Your task to perform on an android device: turn off airplane mode Image 0: 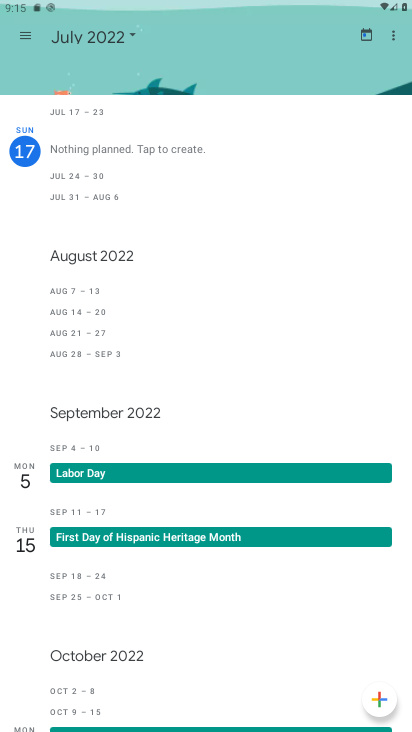
Step 0: press home button
Your task to perform on an android device: turn off airplane mode Image 1: 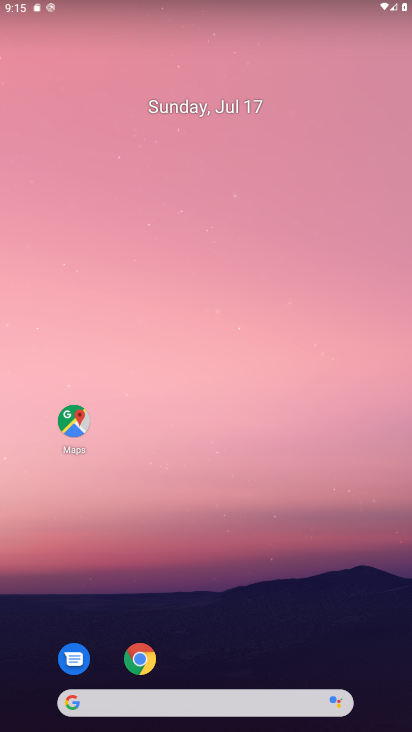
Step 1: drag from (175, 688) to (161, 41)
Your task to perform on an android device: turn off airplane mode Image 2: 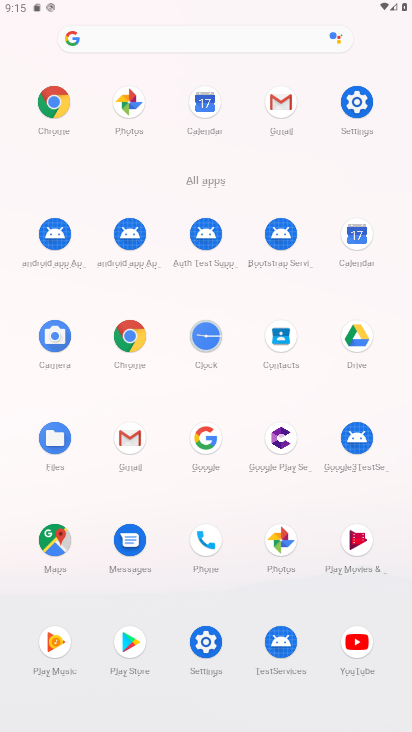
Step 2: click (368, 100)
Your task to perform on an android device: turn off airplane mode Image 3: 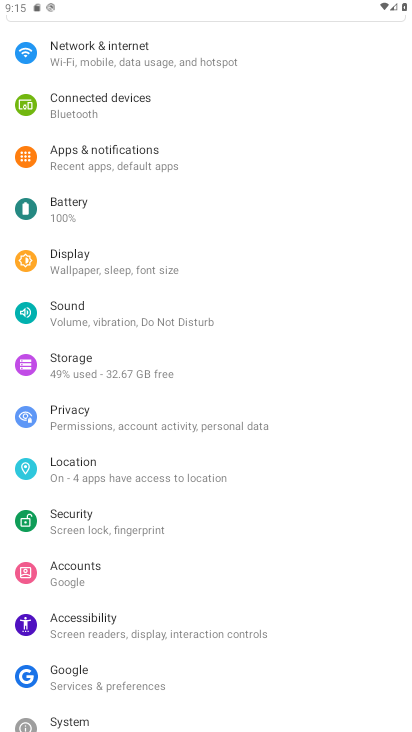
Step 3: click (177, 61)
Your task to perform on an android device: turn off airplane mode Image 4: 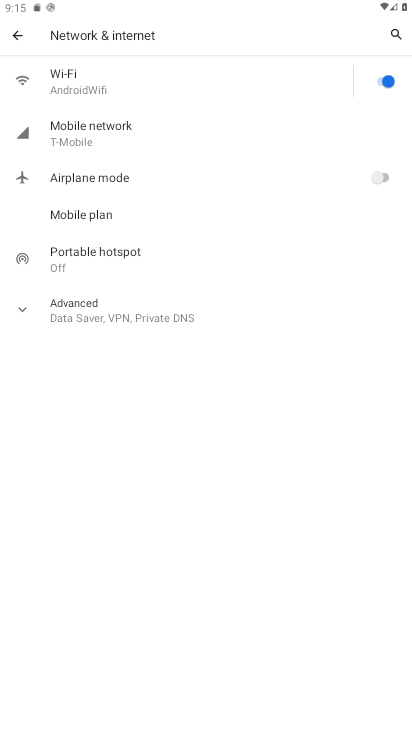
Step 4: task complete